Your task to perform on an android device: Do I have any events this weekend? Image 0: 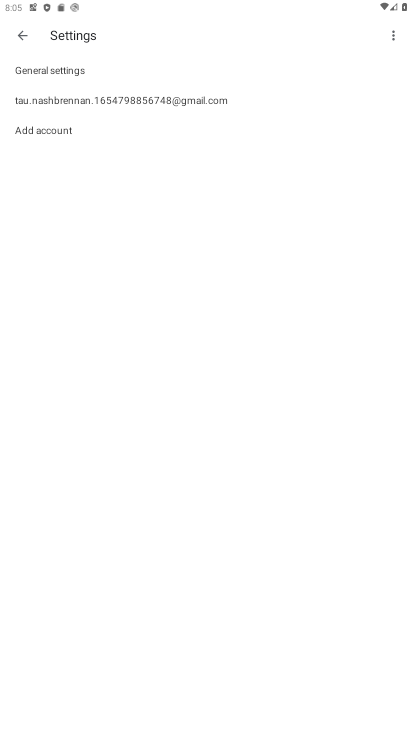
Step 0: press home button
Your task to perform on an android device: Do I have any events this weekend? Image 1: 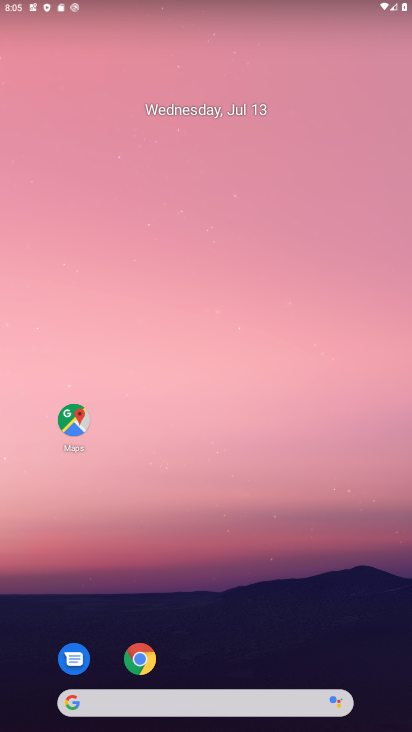
Step 1: drag from (239, 611) to (217, 125)
Your task to perform on an android device: Do I have any events this weekend? Image 2: 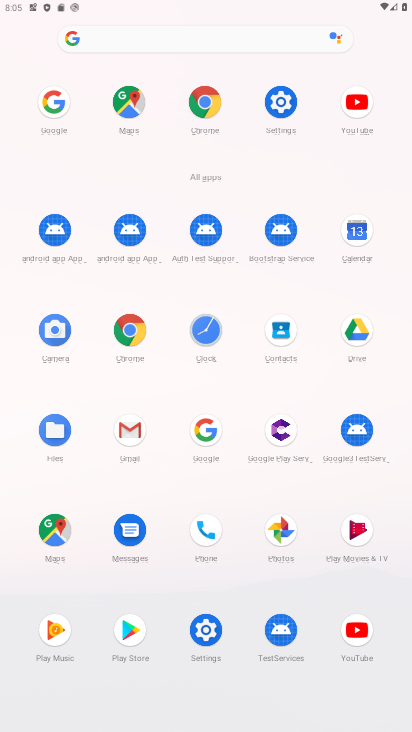
Step 2: click (348, 244)
Your task to perform on an android device: Do I have any events this weekend? Image 3: 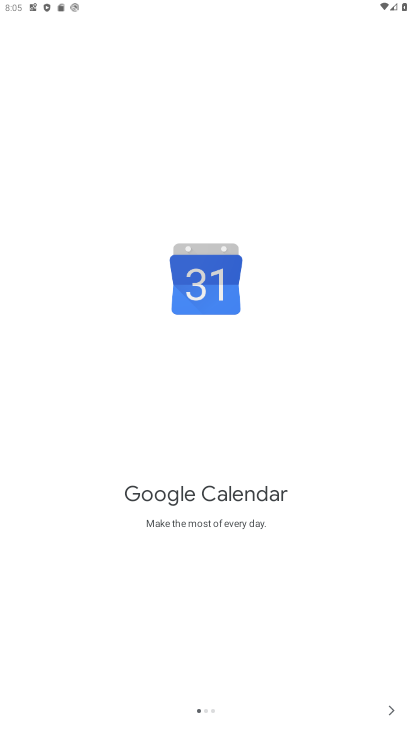
Step 3: click (394, 709)
Your task to perform on an android device: Do I have any events this weekend? Image 4: 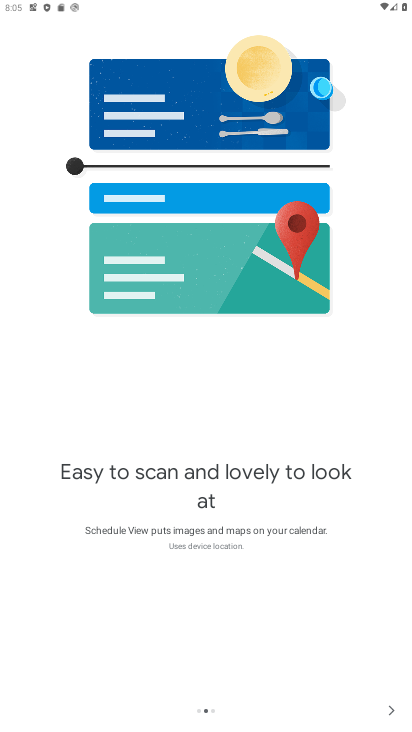
Step 4: click (394, 709)
Your task to perform on an android device: Do I have any events this weekend? Image 5: 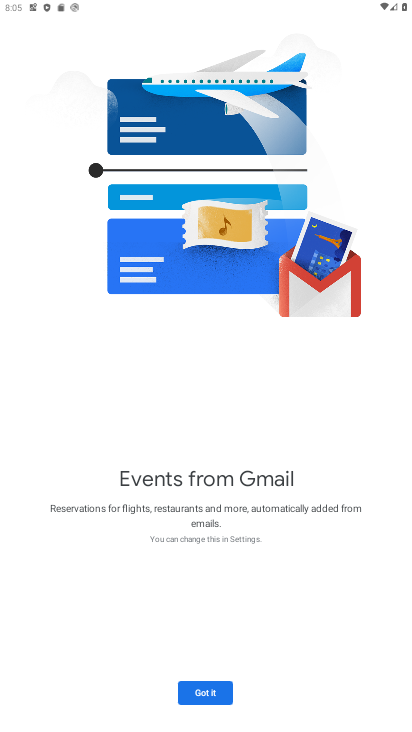
Step 5: click (203, 684)
Your task to perform on an android device: Do I have any events this weekend? Image 6: 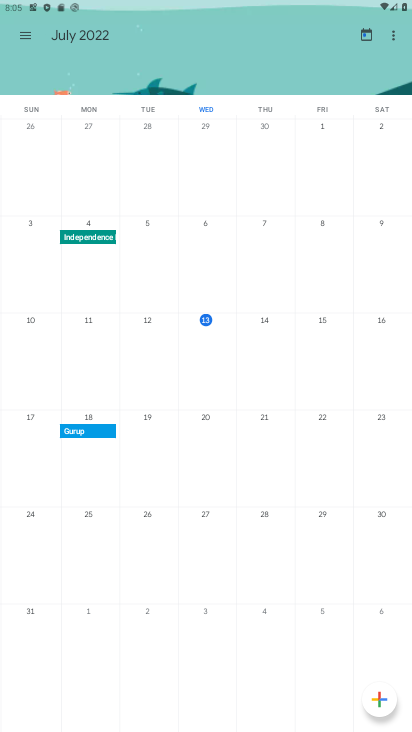
Step 6: click (28, 46)
Your task to perform on an android device: Do I have any events this weekend? Image 7: 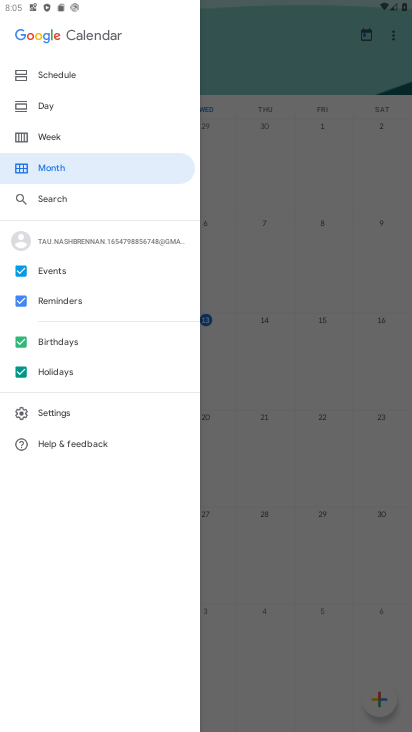
Step 7: click (78, 76)
Your task to perform on an android device: Do I have any events this weekend? Image 8: 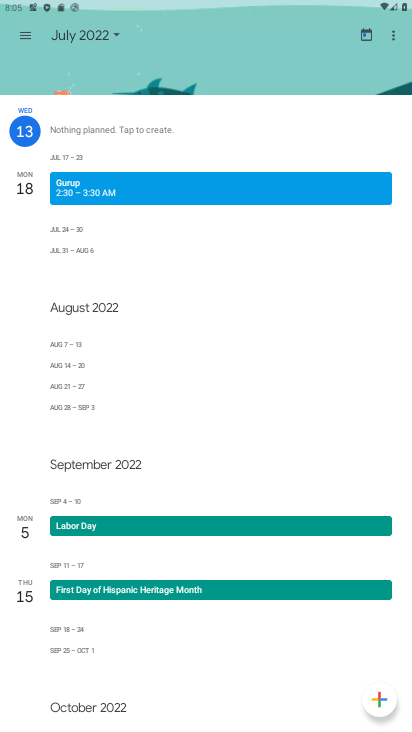
Step 8: task complete